Your task to perform on an android device: toggle show notifications on the lock screen Image 0: 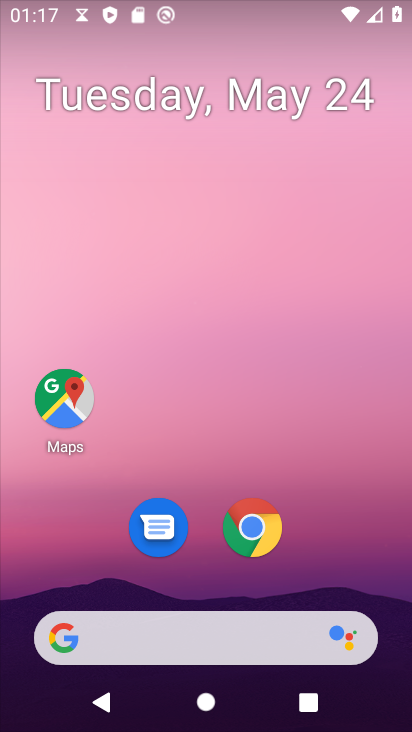
Step 0: press home button
Your task to perform on an android device: toggle show notifications on the lock screen Image 1: 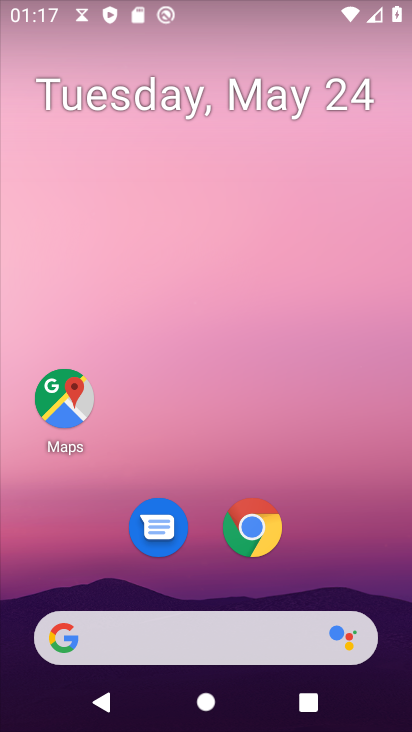
Step 1: drag from (166, 638) to (336, 131)
Your task to perform on an android device: toggle show notifications on the lock screen Image 2: 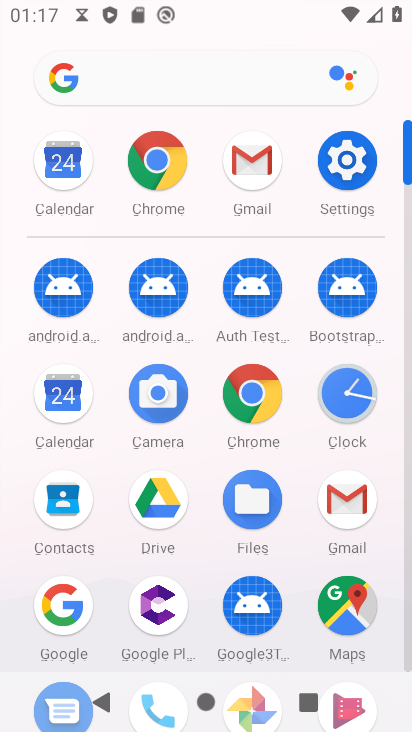
Step 2: click (343, 156)
Your task to perform on an android device: toggle show notifications on the lock screen Image 3: 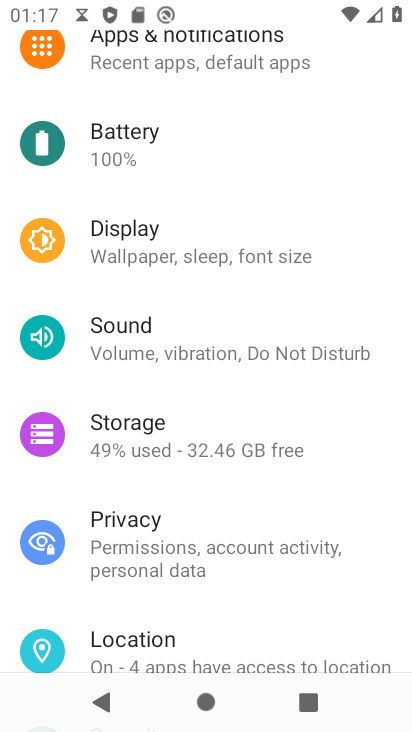
Step 3: drag from (284, 210) to (238, 427)
Your task to perform on an android device: toggle show notifications on the lock screen Image 4: 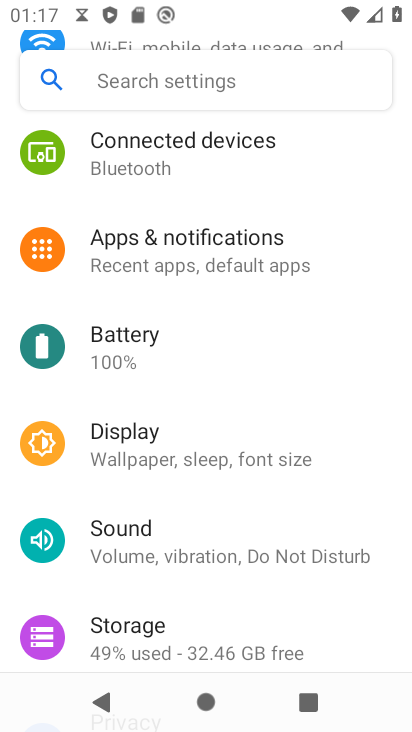
Step 4: click (219, 261)
Your task to perform on an android device: toggle show notifications on the lock screen Image 5: 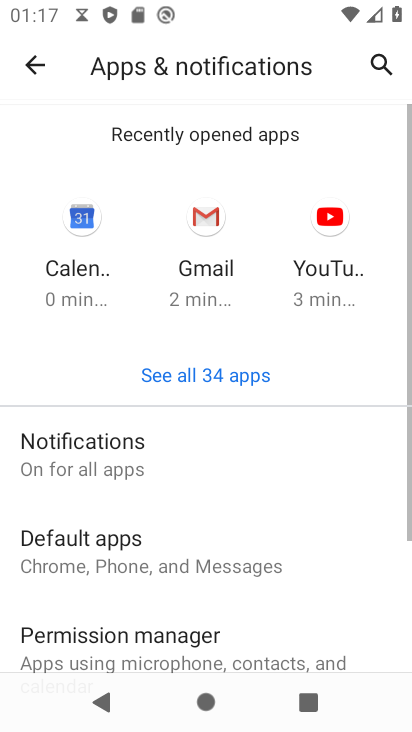
Step 5: drag from (169, 518) to (306, 346)
Your task to perform on an android device: toggle show notifications on the lock screen Image 6: 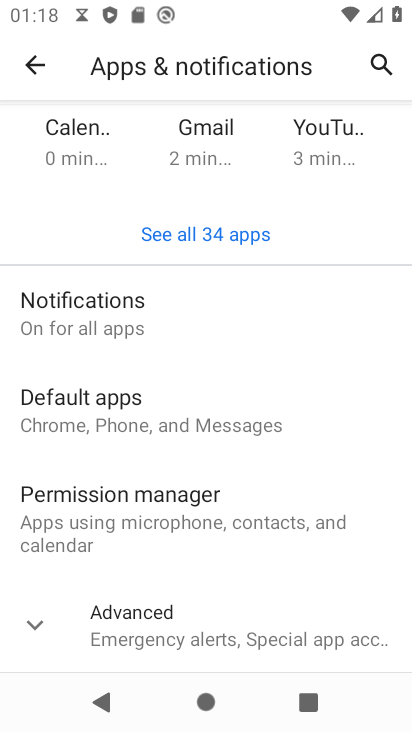
Step 6: click (134, 306)
Your task to perform on an android device: toggle show notifications on the lock screen Image 7: 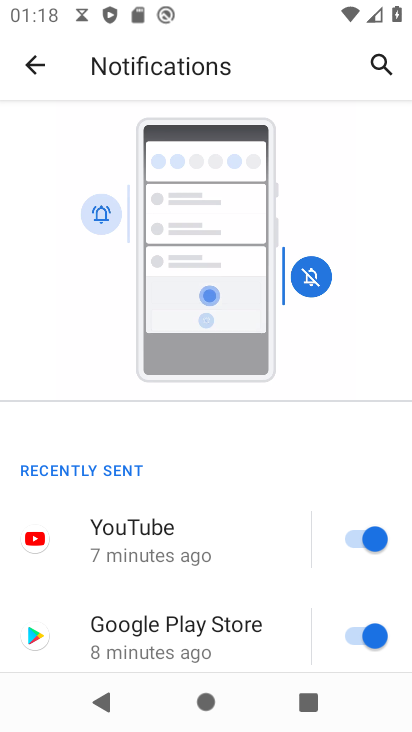
Step 7: drag from (249, 550) to (394, 176)
Your task to perform on an android device: toggle show notifications on the lock screen Image 8: 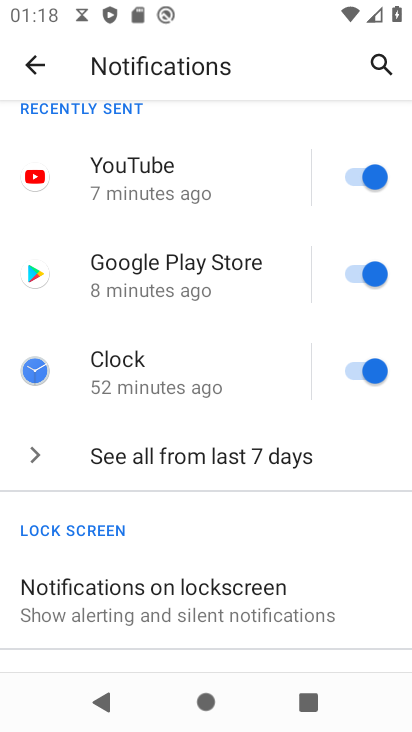
Step 8: drag from (226, 549) to (341, 352)
Your task to perform on an android device: toggle show notifications on the lock screen Image 9: 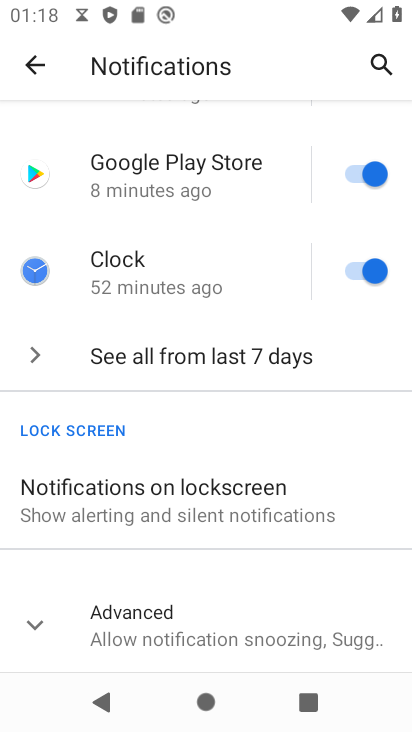
Step 9: click (205, 499)
Your task to perform on an android device: toggle show notifications on the lock screen Image 10: 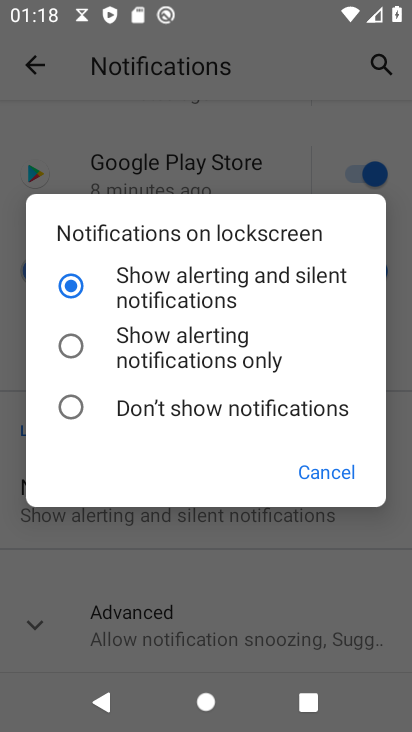
Step 10: click (78, 409)
Your task to perform on an android device: toggle show notifications on the lock screen Image 11: 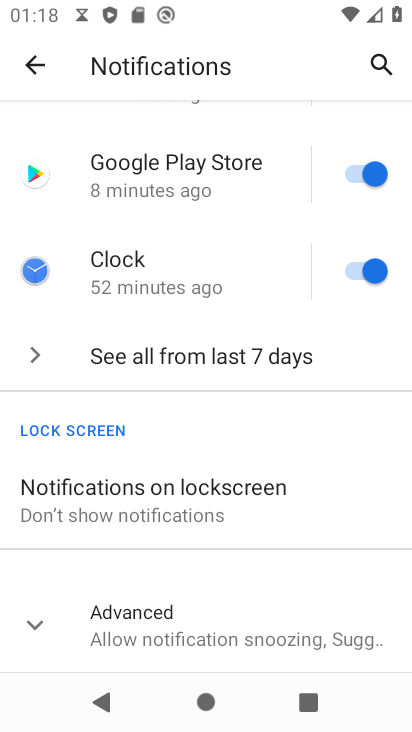
Step 11: task complete